Your task to perform on an android device: Open my contact list Image 0: 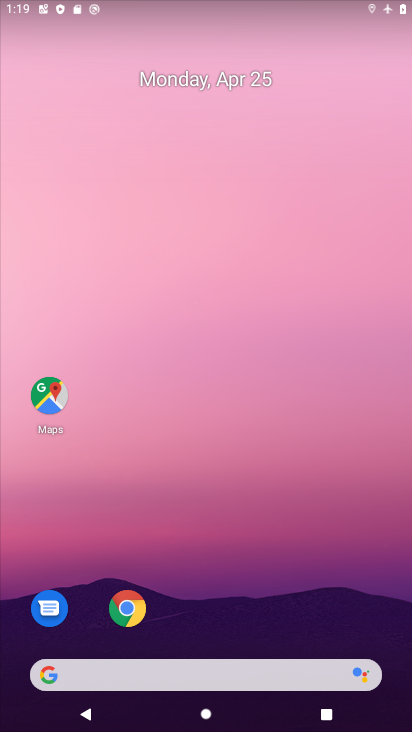
Step 0: drag from (204, 633) to (164, 33)
Your task to perform on an android device: Open my contact list Image 1: 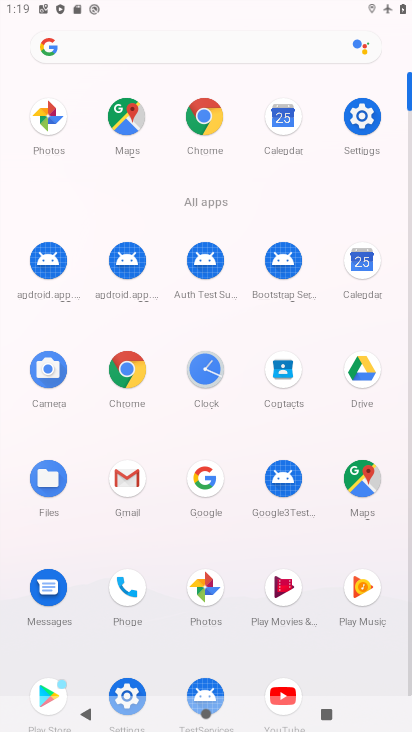
Step 1: click (282, 379)
Your task to perform on an android device: Open my contact list Image 2: 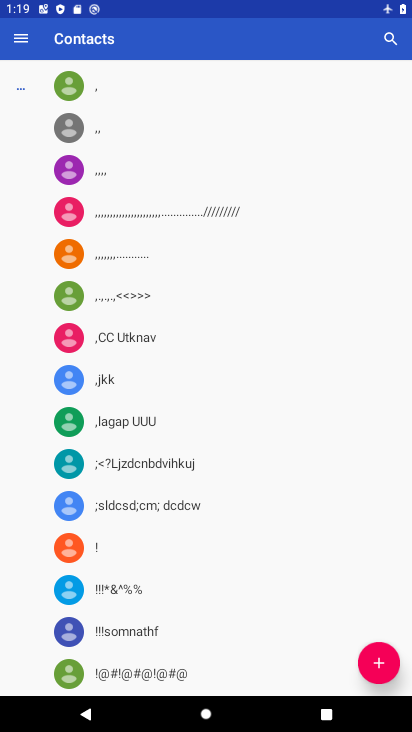
Step 2: task complete